Your task to perform on an android device: Go to wifi settings Image 0: 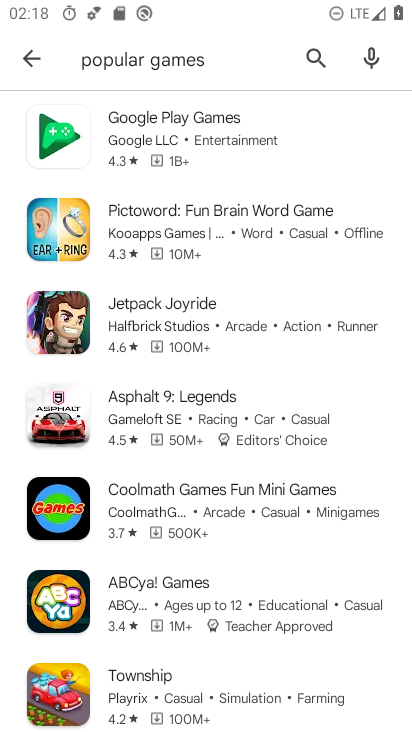
Step 0: press home button
Your task to perform on an android device: Go to wifi settings Image 1: 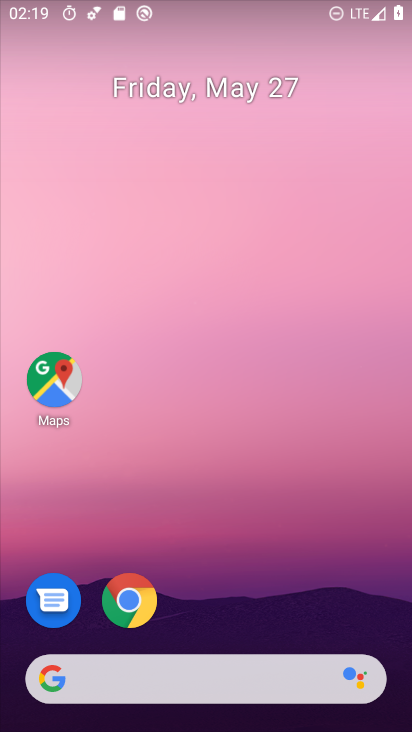
Step 1: drag from (225, 576) to (225, 176)
Your task to perform on an android device: Go to wifi settings Image 2: 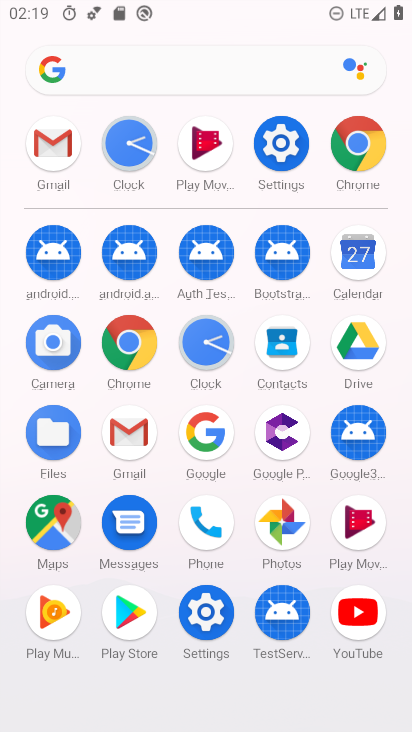
Step 2: click (268, 138)
Your task to perform on an android device: Go to wifi settings Image 3: 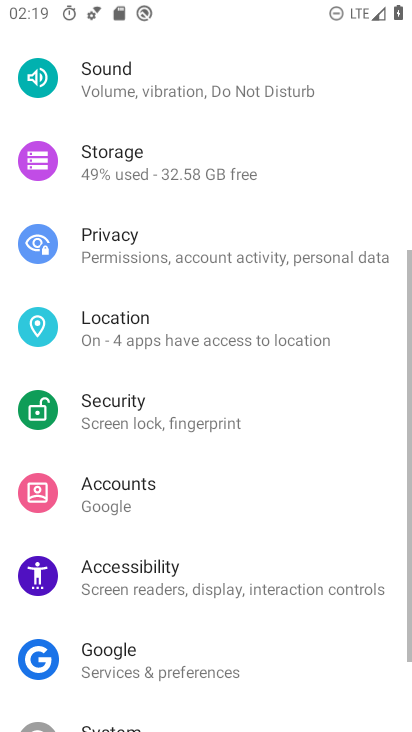
Step 3: drag from (257, 116) to (255, 623)
Your task to perform on an android device: Go to wifi settings Image 4: 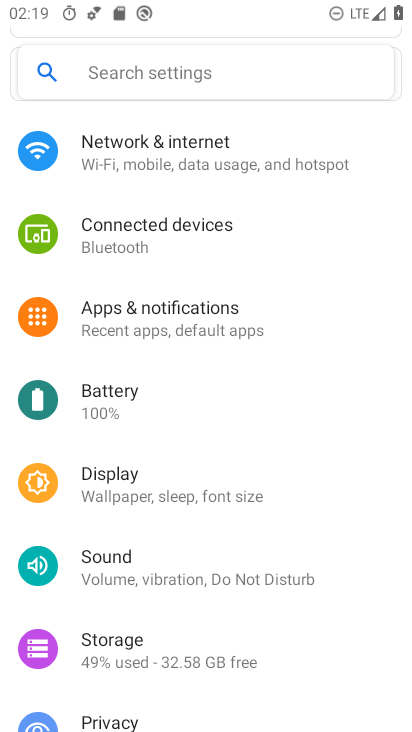
Step 4: click (237, 153)
Your task to perform on an android device: Go to wifi settings Image 5: 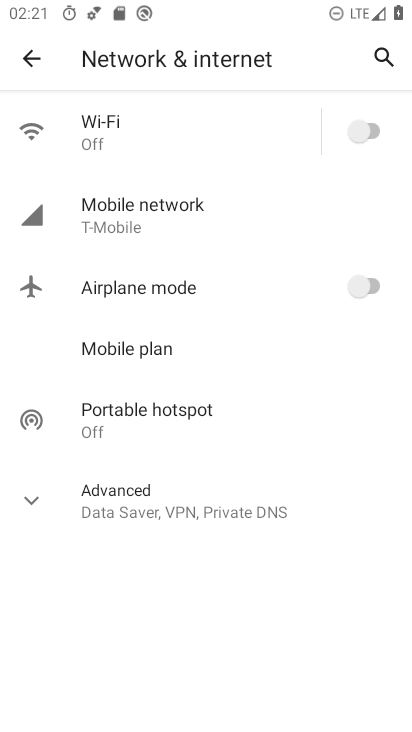
Step 5: click (152, 137)
Your task to perform on an android device: Go to wifi settings Image 6: 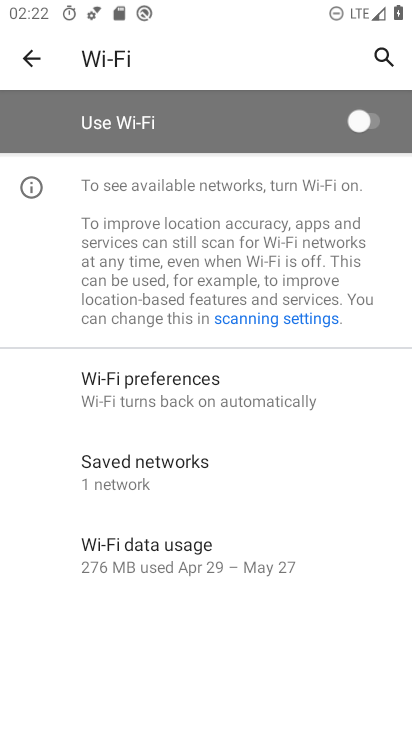
Step 6: task complete